Your task to perform on an android device: turn on bluetooth scan Image 0: 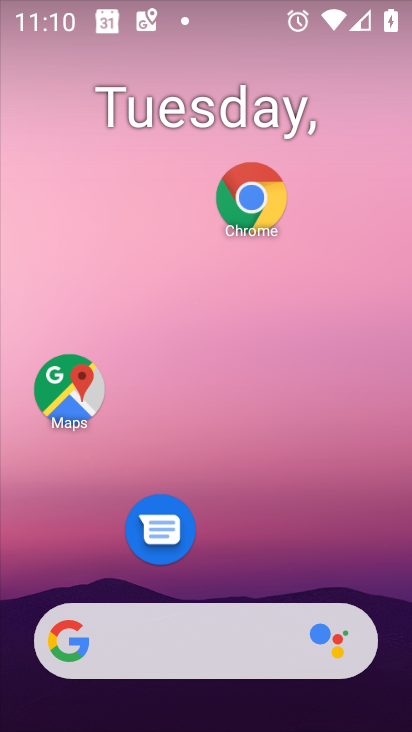
Step 0: drag from (302, 529) to (311, 73)
Your task to perform on an android device: turn on bluetooth scan Image 1: 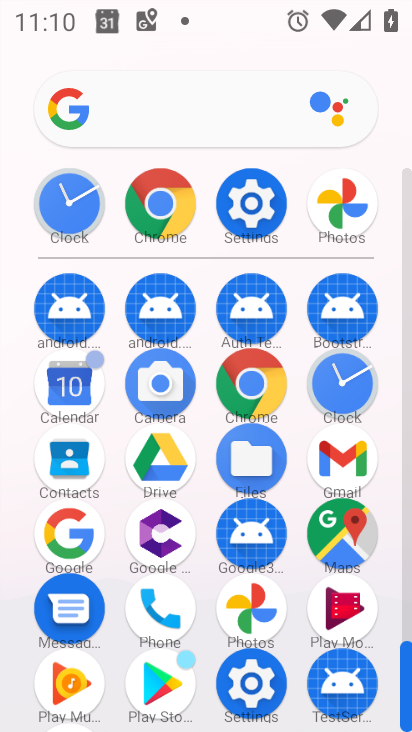
Step 1: click (259, 668)
Your task to perform on an android device: turn on bluetooth scan Image 2: 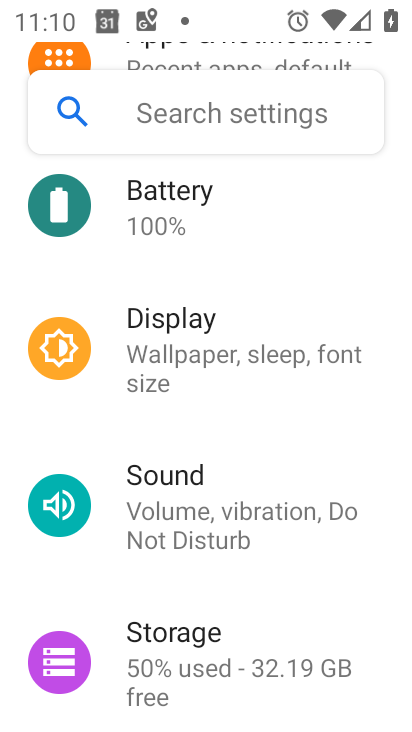
Step 2: drag from (248, 605) to (238, 71)
Your task to perform on an android device: turn on bluetooth scan Image 3: 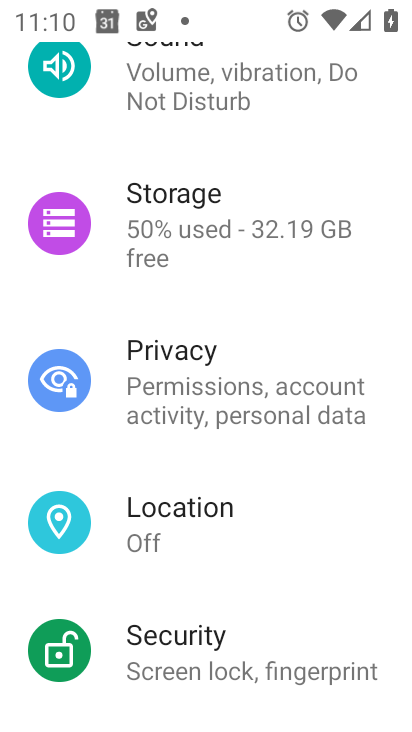
Step 3: drag from (212, 603) to (252, 168)
Your task to perform on an android device: turn on bluetooth scan Image 4: 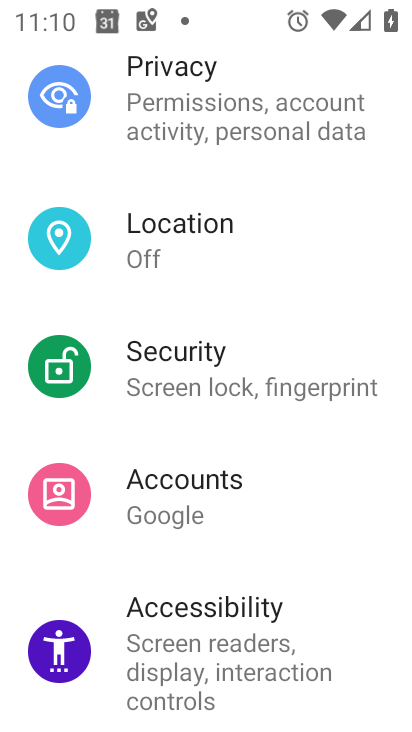
Step 4: drag from (222, 613) to (242, 348)
Your task to perform on an android device: turn on bluetooth scan Image 5: 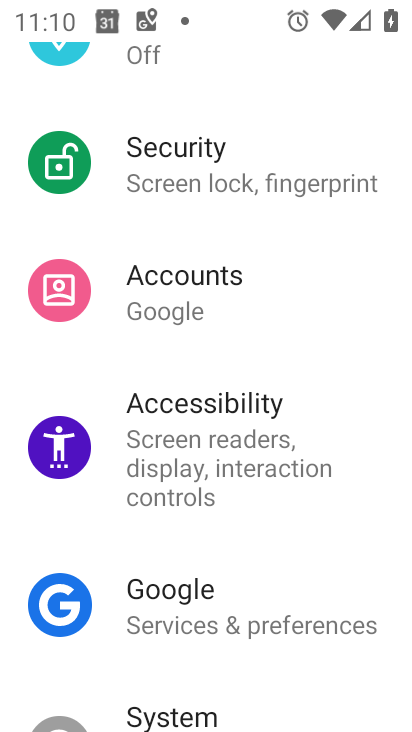
Step 5: click (234, 80)
Your task to perform on an android device: turn on bluetooth scan Image 6: 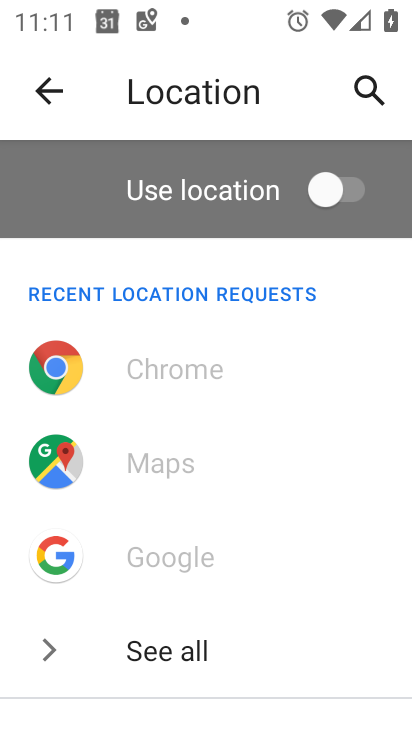
Step 6: drag from (221, 602) to (221, 556)
Your task to perform on an android device: turn on bluetooth scan Image 7: 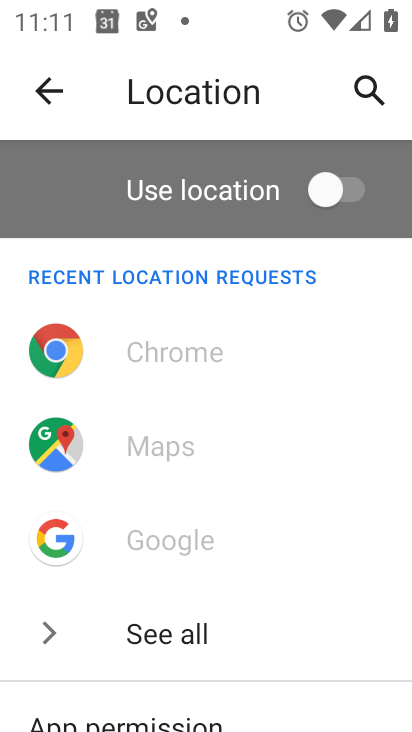
Step 7: drag from (273, 694) to (309, 200)
Your task to perform on an android device: turn on bluetooth scan Image 8: 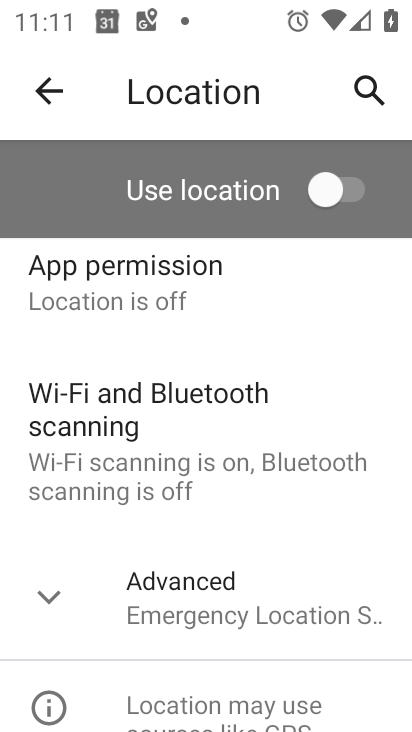
Step 8: click (211, 473)
Your task to perform on an android device: turn on bluetooth scan Image 9: 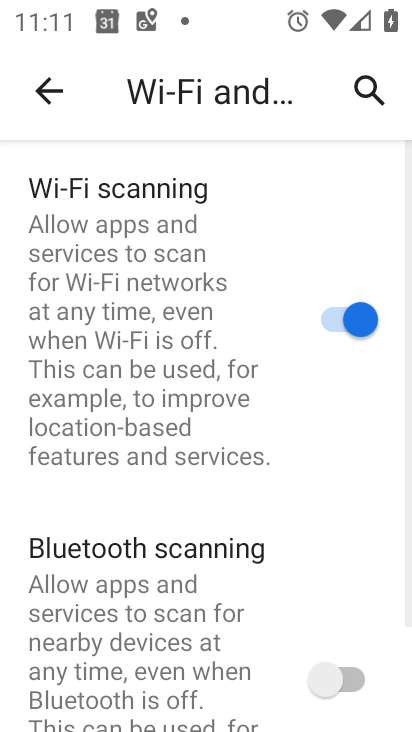
Step 9: click (342, 685)
Your task to perform on an android device: turn on bluetooth scan Image 10: 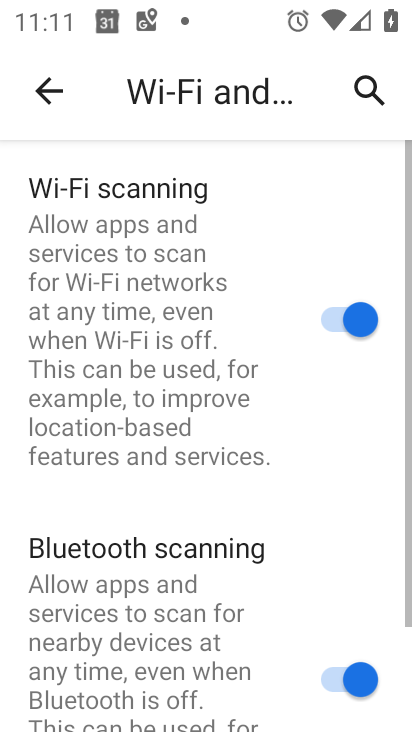
Step 10: task complete